Your task to perform on an android device: Open privacy settings Image 0: 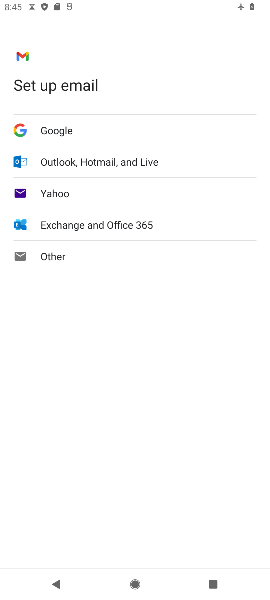
Step 0: press home button
Your task to perform on an android device: Open privacy settings Image 1: 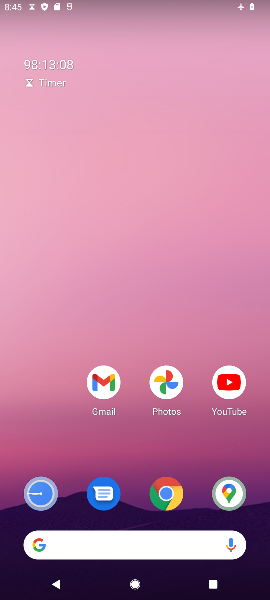
Step 1: drag from (116, 499) to (148, 138)
Your task to perform on an android device: Open privacy settings Image 2: 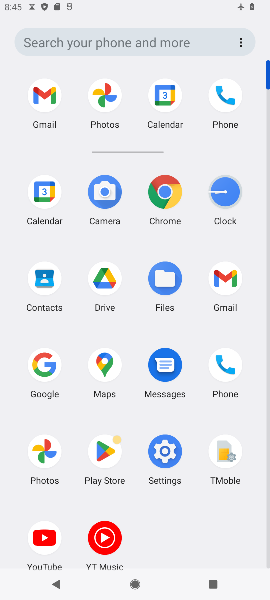
Step 2: click (161, 456)
Your task to perform on an android device: Open privacy settings Image 3: 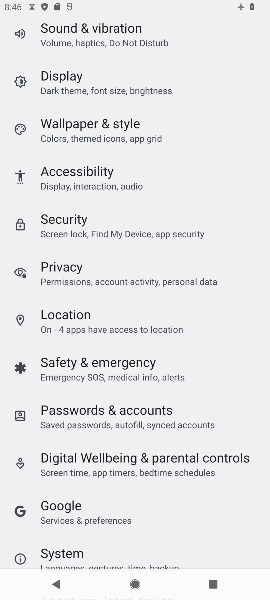
Step 3: click (91, 265)
Your task to perform on an android device: Open privacy settings Image 4: 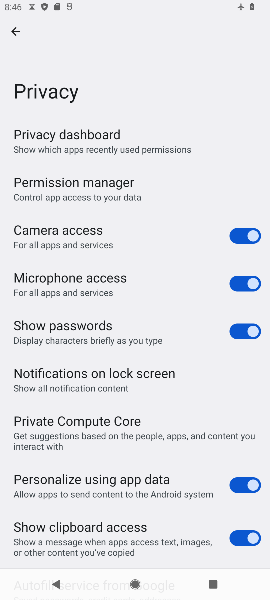
Step 4: task complete